Your task to perform on an android device: Open Google Chrome and open the bookmarks view Image 0: 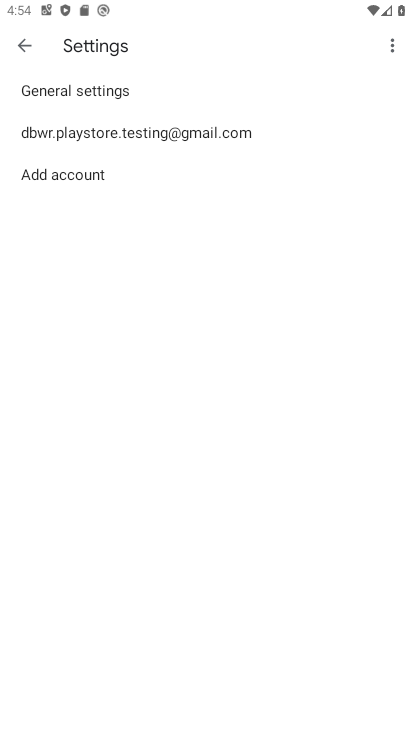
Step 0: press home button
Your task to perform on an android device: Open Google Chrome and open the bookmarks view Image 1: 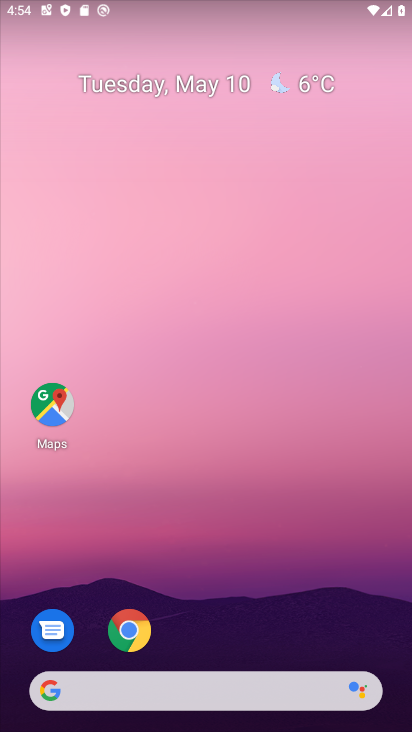
Step 1: click (140, 631)
Your task to perform on an android device: Open Google Chrome and open the bookmarks view Image 2: 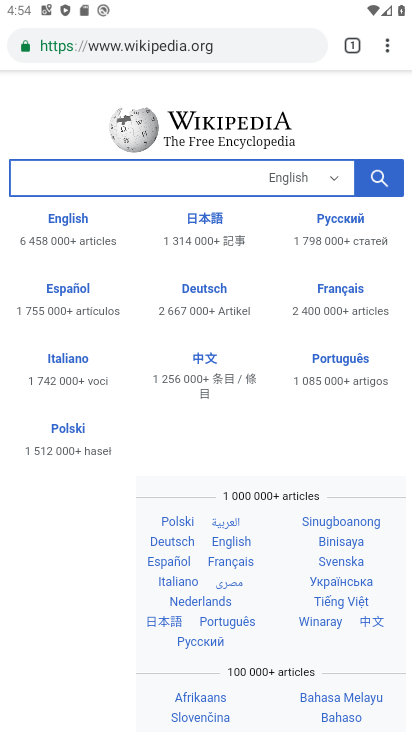
Step 2: task complete